Your task to perform on an android device: set an alarm Image 0: 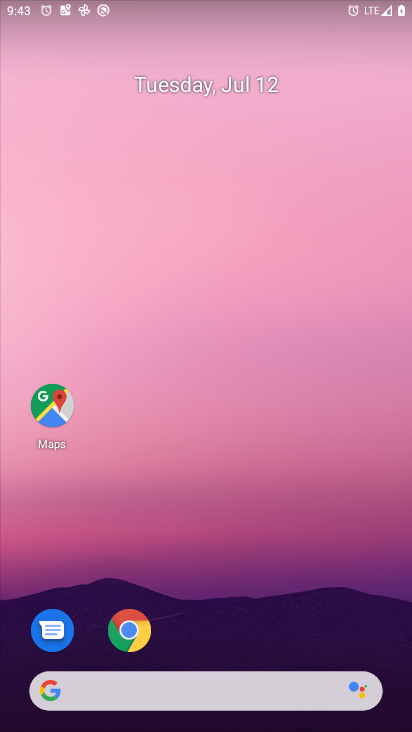
Step 0: drag from (218, 438) to (139, 12)
Your task to perform on an android device: set an alarm Image 1: 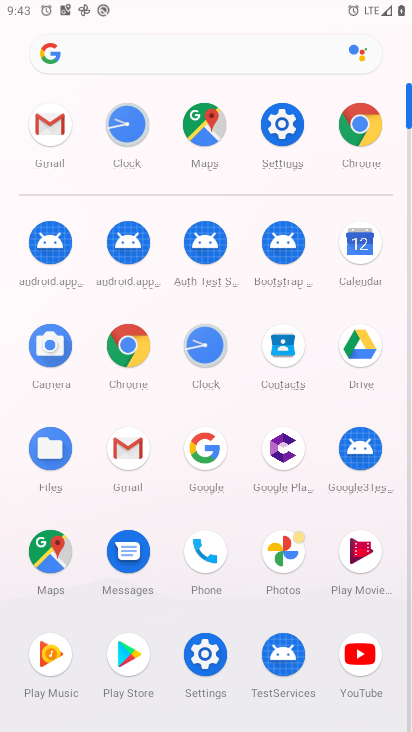
Step 1: click (194, 334)
Your task to perform on an android device: set an alarm Image 2: 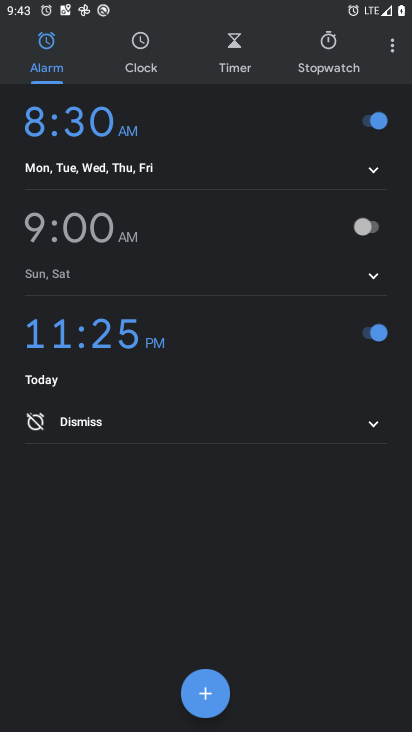
Step 2: click (194, 699)
Your task to perform on an android device: set an alarm Image 3: 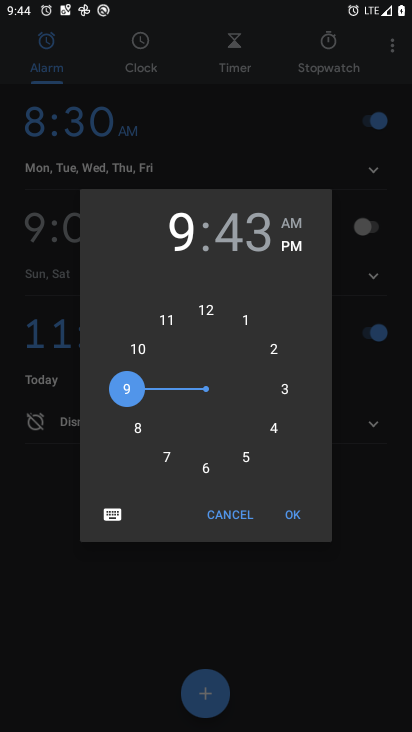
Step 3: click (288, 395)
Your task to perform on an android device: set an alarm Image 4: 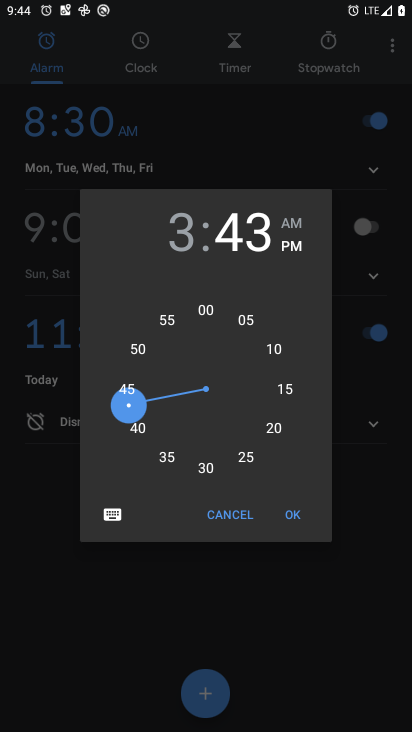
Step 4: click (290, 520)
Your task to perform on an android device: set an alarm Image 5: 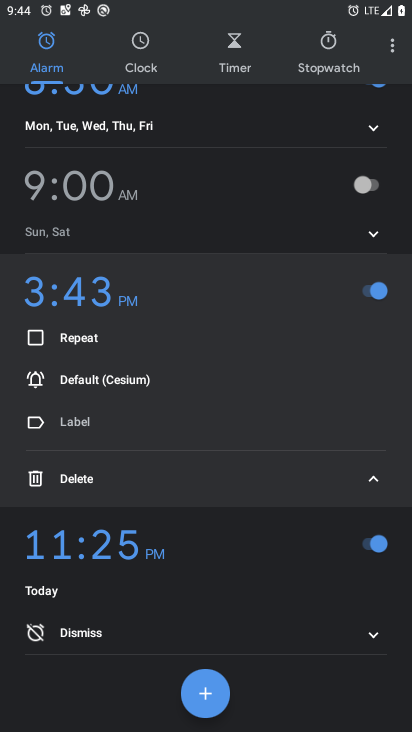
Step 5: click (371, 478)
Your task to perform on an android device: set an alarm Image 6: 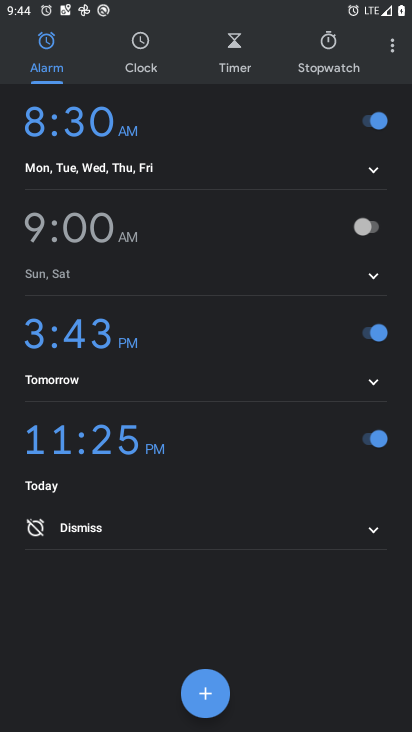
Step 6: task complete